Your task to perform on an android device: Open internet settings Image 0: 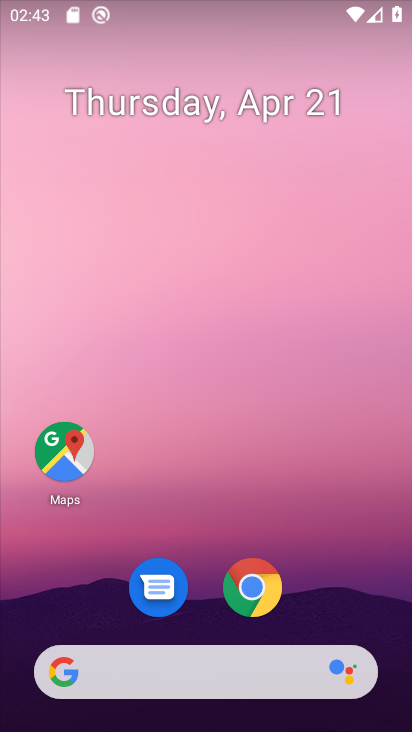
Step 0: drag from (353, 593) to (344, 135)
Your task to perform on an android device: Open internet settings Image 1: 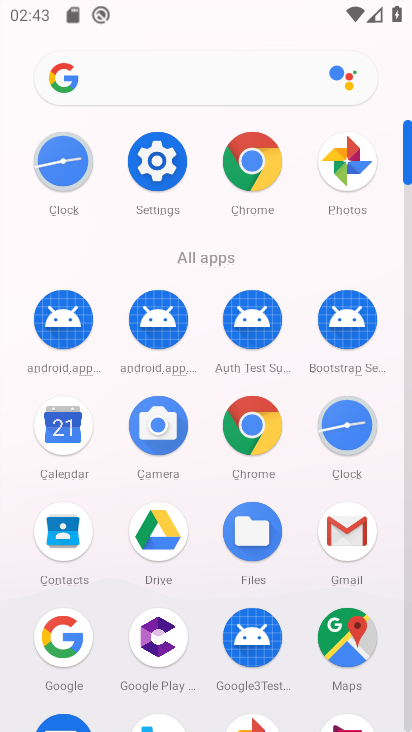
Step 1: click (169, 156)
Your task to perform on an android device: Open internet settings Image 2: 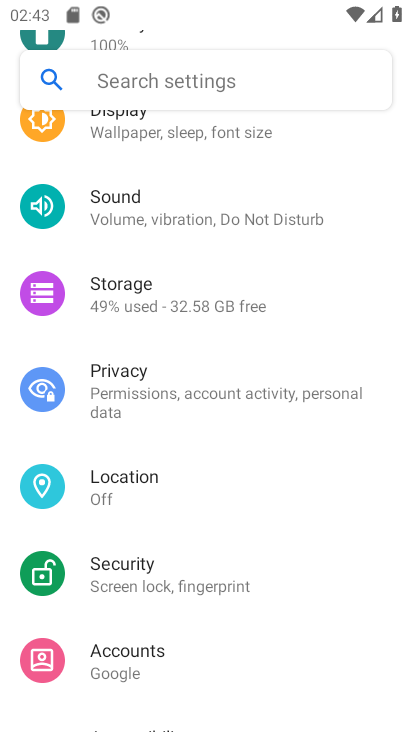
Step 2: drag from (339, 597) to (351, 377)
Your task to perform on an android device: Open internet settings Image 3: 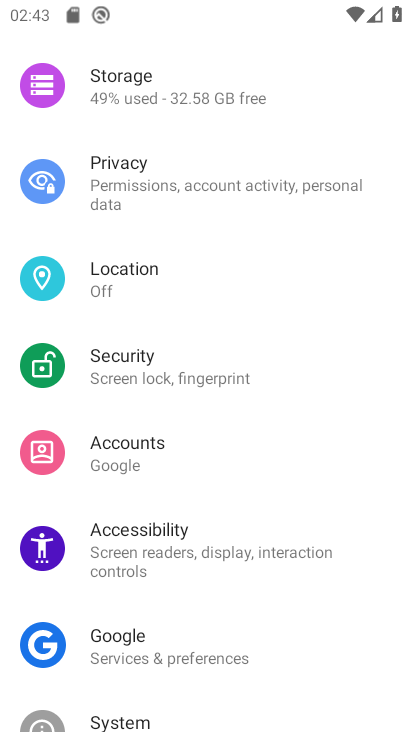
Step 3: drag from (336, 640) to (349, 323)
Your task to perform on an android device: Open internet settings Image 4: 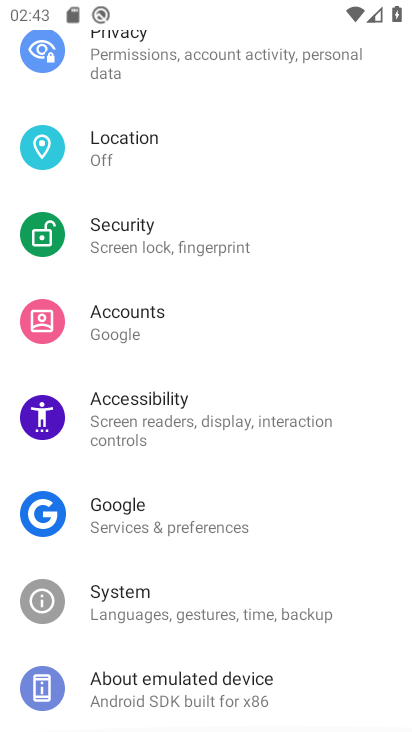
Step 4: drag from (357, 285) to (350, 499)
Your task to perform on an android device: Open internet settings Image 5: 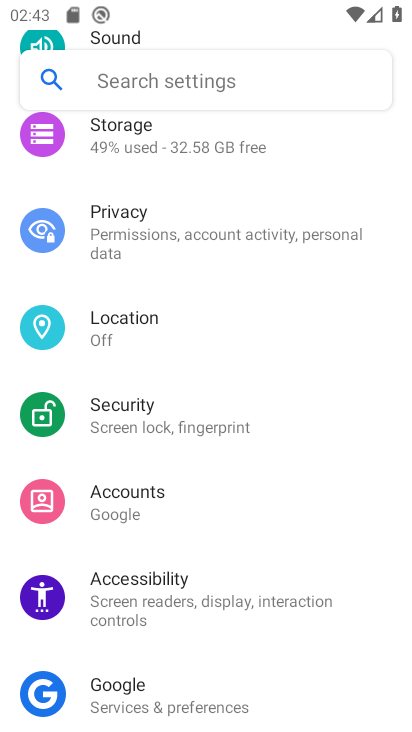
Step 5: drag from (348, 320) to (347, 439)
Your task to perform on an android device: Open internet settings Image 6: 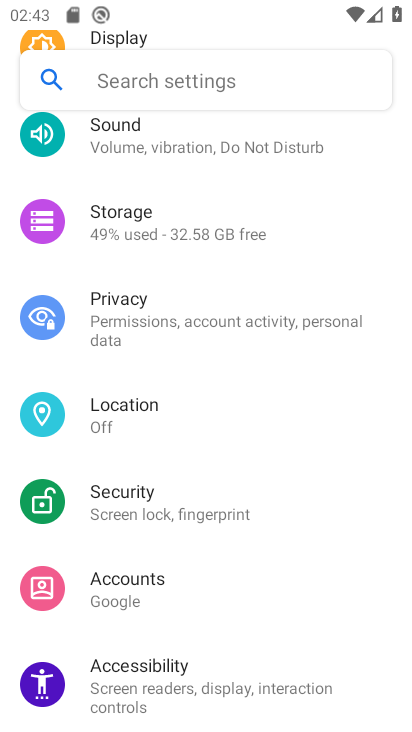
Step 6: drag from (382, 286) to (376, 409)
Your task to perform on an android device: Open internet settings Image 7: 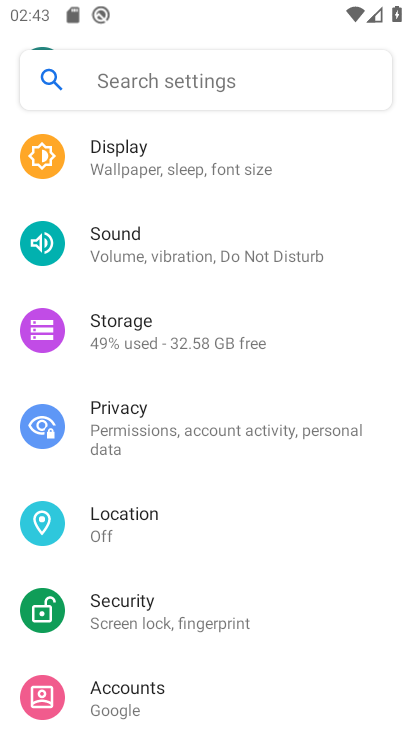
Step 7: drag from (378, 306) to (375, 395)
Your task to perform on an android device: Open internet settings Image 8: 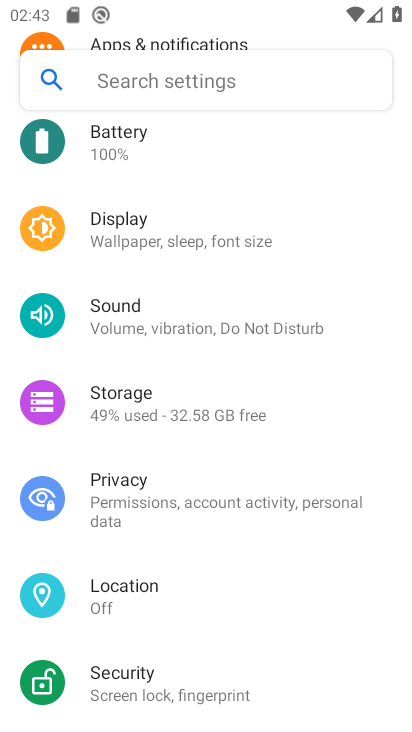
Step 8: drag from (369, 253) to (367, 389)
Your task to perform on an android device: Open internet settings Image 9: 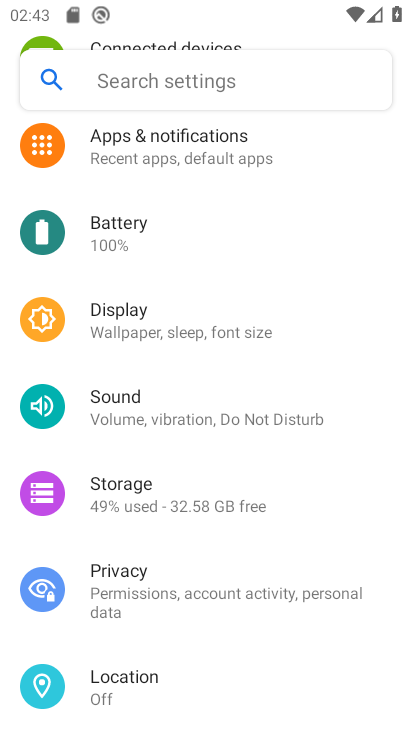
Step 9: drag from (372, 238) to (370, 381)
Your task to perform on an android device: Open internet settings Image 10: 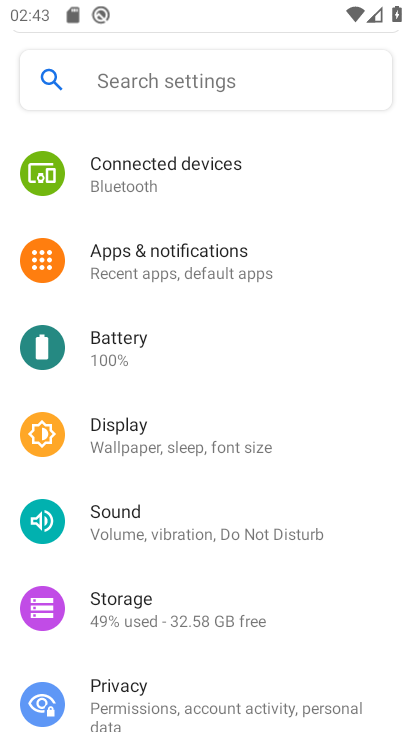
Step 10: drag from (354, 258) to (360, 364)
Your task to perform on an android device: Open internet settings Image 11: 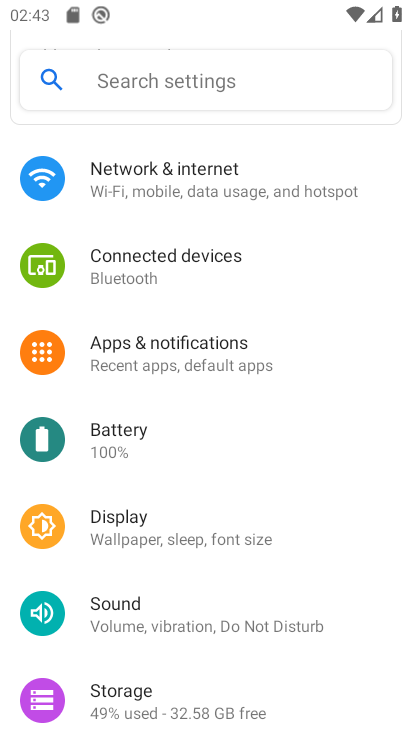
Step 11: drag from (355, 265) to (359, 392)
Your task to perform on an android device: Open internet settings Image 12: 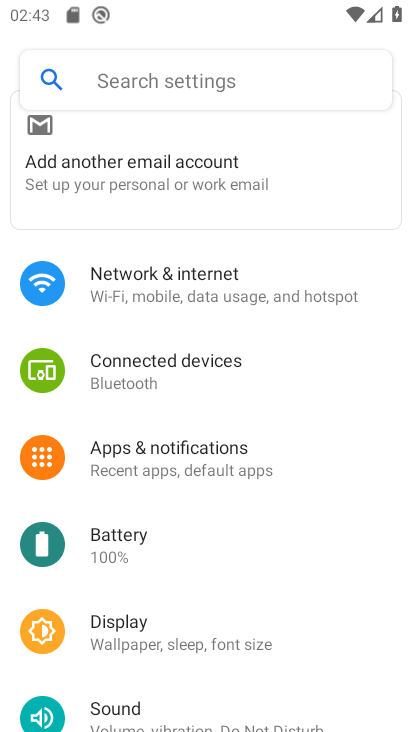
Step 12: click (295, 298)
Your task to perform on an android device: Open internet settings Image 13: 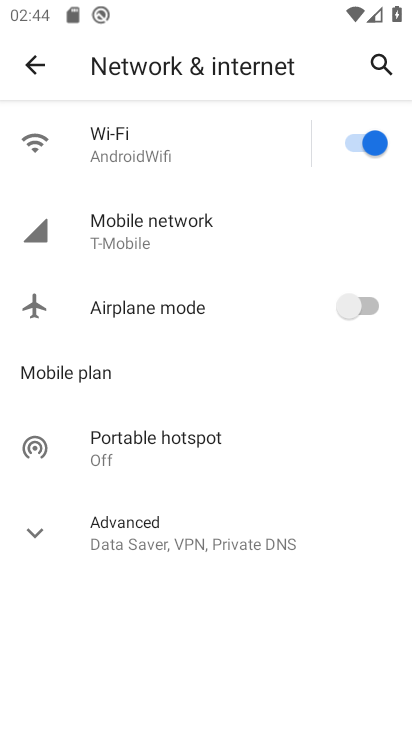
Step 13: task complete